Your task to perform on an android device: Check the weather Image 0: 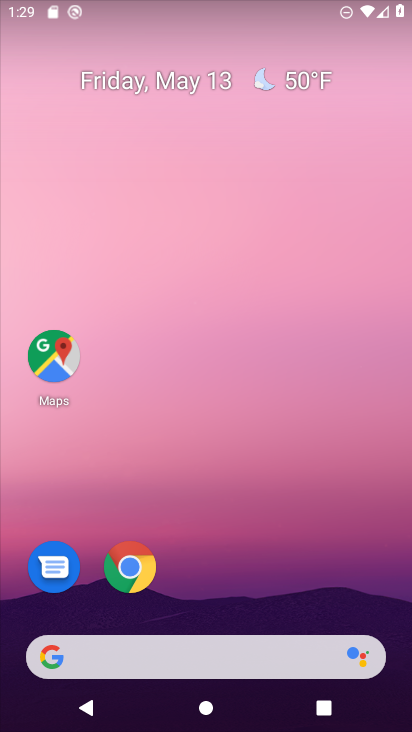
Step 0: drag from (232, 496) to (286, 217)
Your task to perform on an android device: Check the weather Image 1: 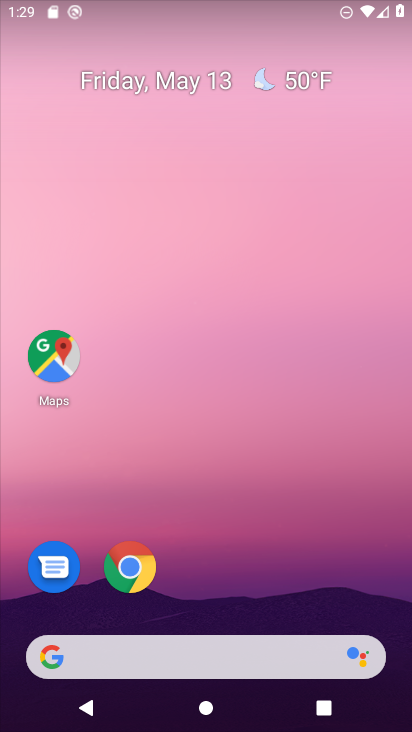
Step 1: drag from (265, 483) to (316, 125)
Your task to perform on an android device: Check the weather Image 2: 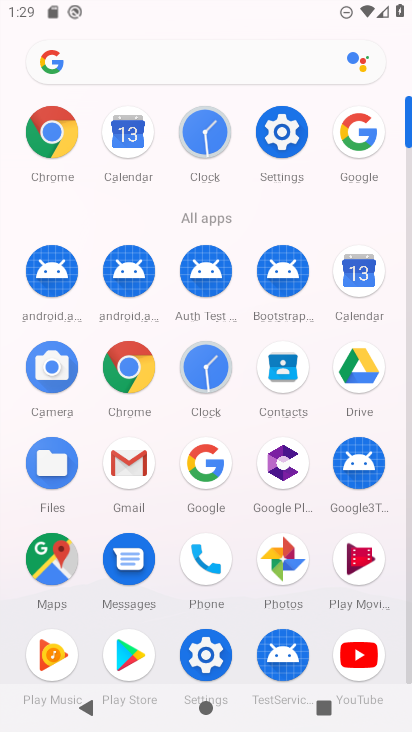
Step 2: click (208, 447)
Your task to perform on an android device: Check the weather Image 3: 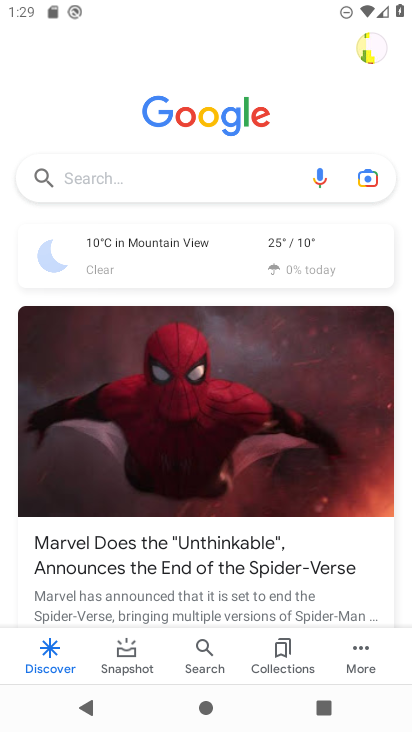
Step 3: click (296, 246)
Your task to perform on an android device: Check the weather Image 4: 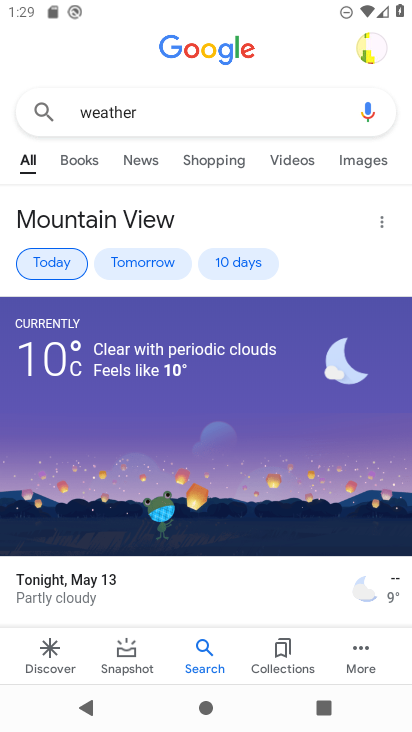
Step 4: task complete